Your task to perform on an android device: When is my next appointment? Image 0: 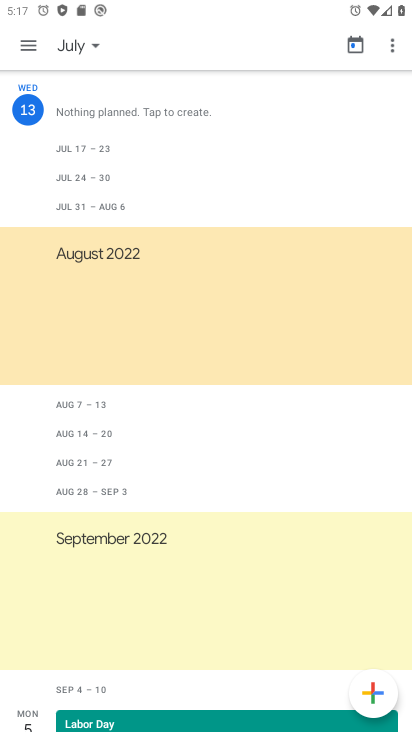
Step 0: click (76, 36)
Your task to perform on an android device: When is my next appointment? Image 1: 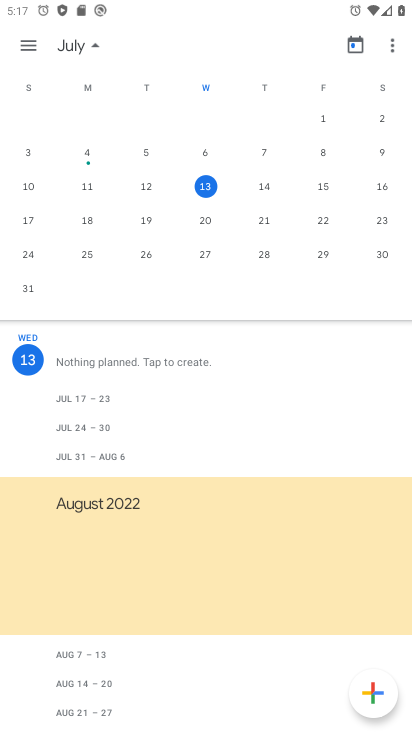
Step 1: click (204, 180)
Your task to perform on an android device: When is my next appointment? Image 2: 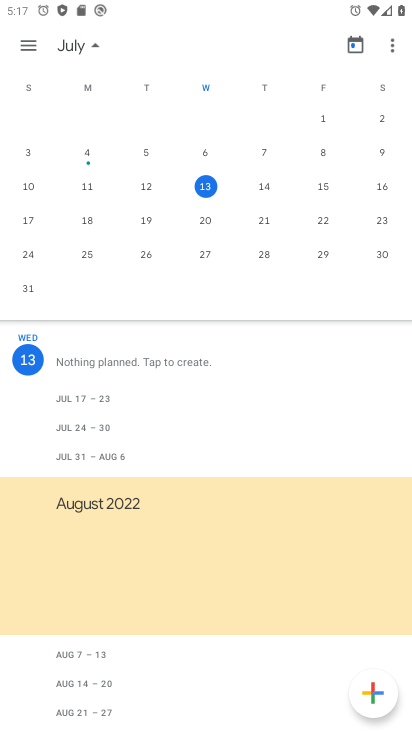
Step 2: drag from (253, 515) to (282, 128)
Your task to perform on an android device: When is my next appointment? Image 3: 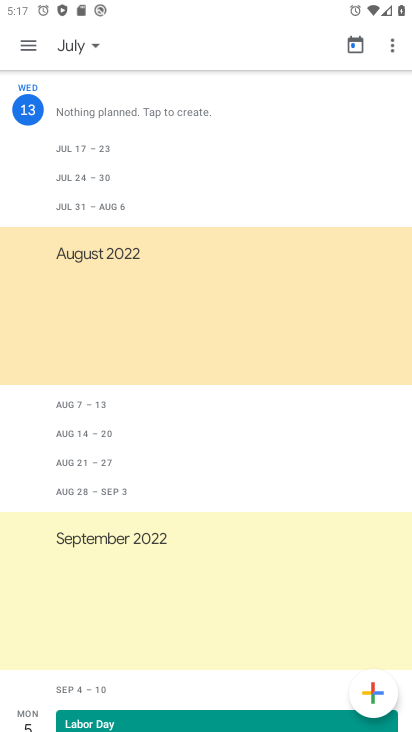
Step 3: click (284, 100)
Your task to perform on an android device: When is my next appointment? Image 4: 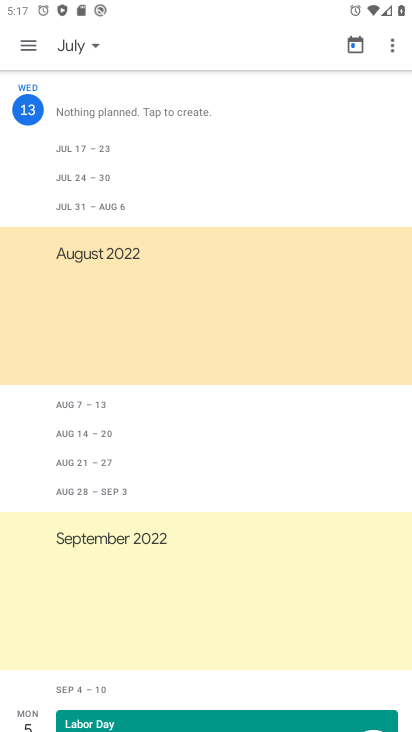
Step 4: drag from (211, 531) to (262, 236)
Your task to perform on an android device: When is my next appointment? Image 5: 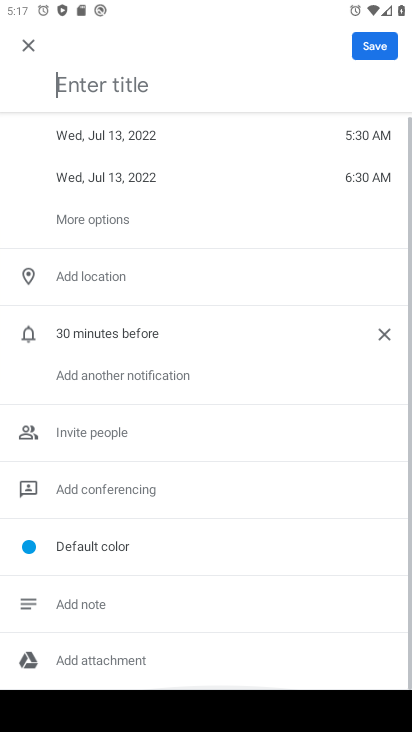
Step 5: click (281, 111)
Your task to perform on an android device: When is my next appointment? Image 6: 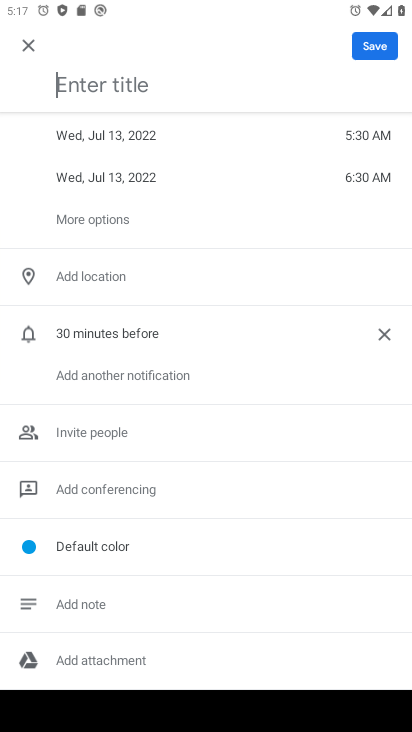
Step 6: task complete